Your task to perform on an android device: Go to location settings Image 0: 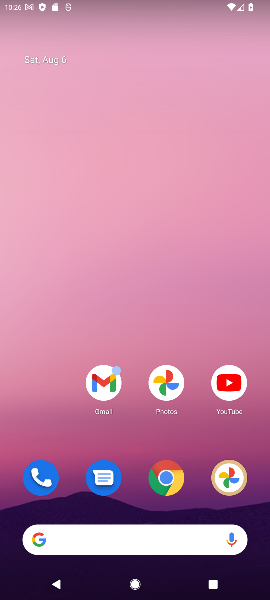
Step 0: drag from (133, 504) to (131, 140)
Your task to perform on an android device: Go to location settings Image 1: 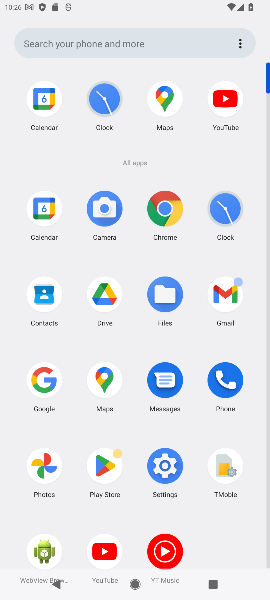
Step 1: click (167, 457)
Your task to perform on an android device: Go to location settings Image 2: 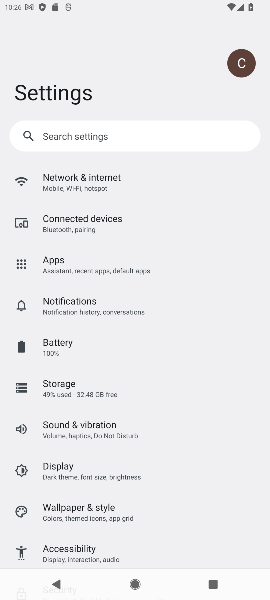
Step 2: click (89, 188)
Your task to perform on an android device: Go to location settings Image 3: 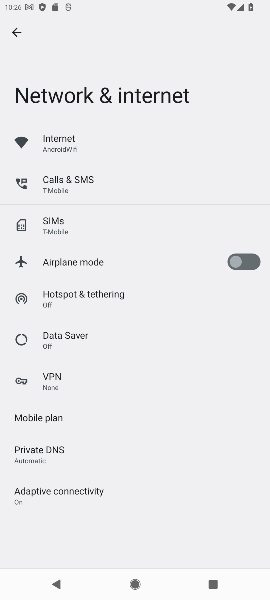
Step 3: click (65, 142)
Your task to perform on an android device: Go to location settings Image 4: 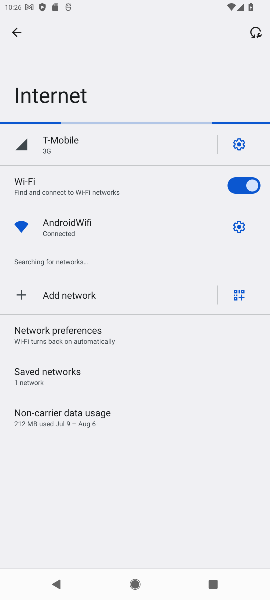
Step 4: task complete